Your task to perform on an android device: turn on priority inbox in the gmail app Image 0: 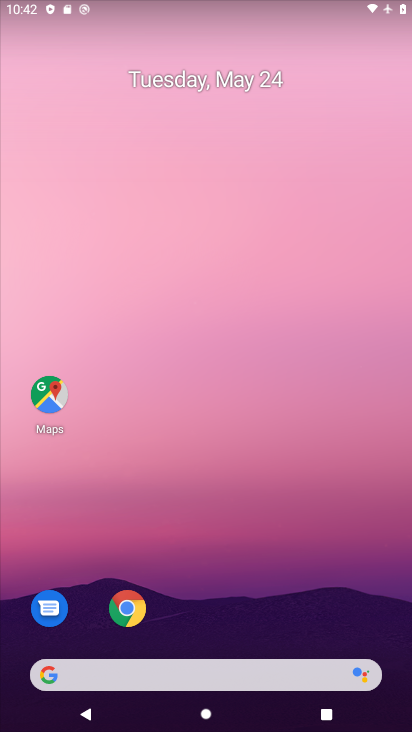
Step 0: drag from (385, 624) to (336, 75)
Your task to perform on an android device: turn on priority inbox in the gmail app Image 1: 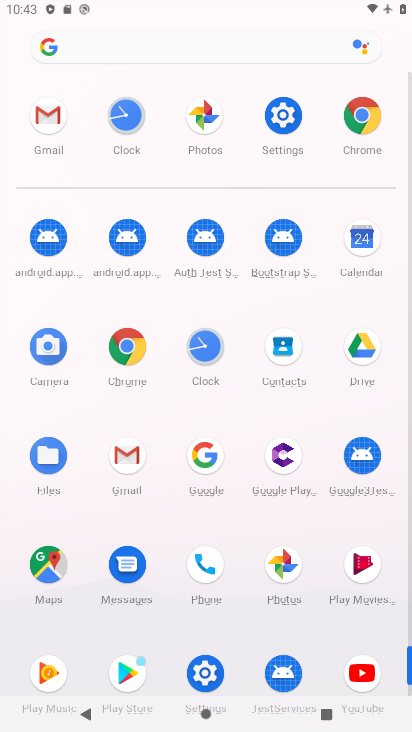
Step 1: click (126, 455)
Your task to perform on an android device: turn on priority inbox in the gmail app Image 2: 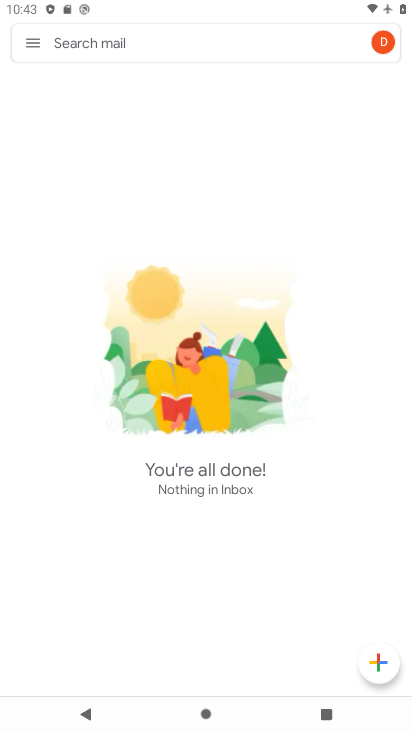
Step 2: click (30, 42)
Your task to perform on an android device: turn on priority inbox in the gmail app Image 3: 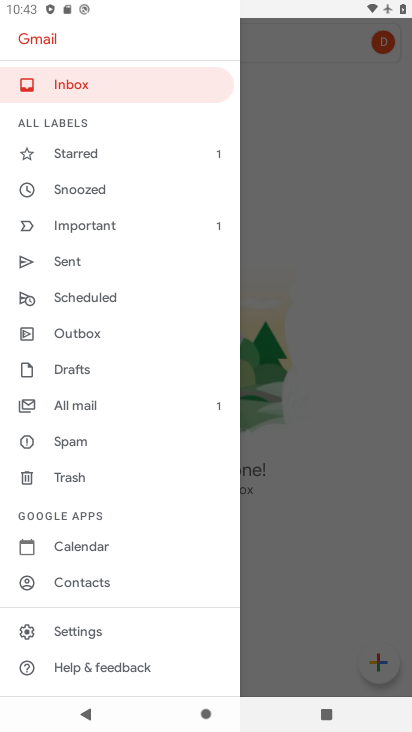
Step 3: click (92, 630)
Your task to perform on an android device: turn on priority inbox in the gmail app Image 4: 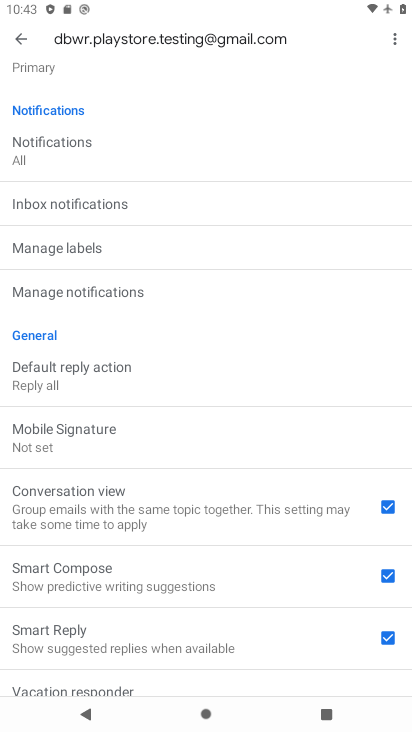
Step 4: drag from (137, 149) to (184, 452)
Your task to perform on an android device: turn on priority inbox in the gmail app Image 5: 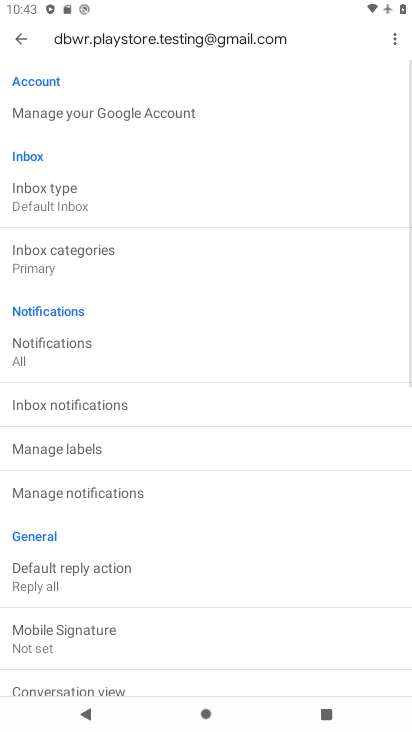
Step 5: click (38, 200)
Your task to perform on an android device: turn on priority inbox in the gmail app Image 6: 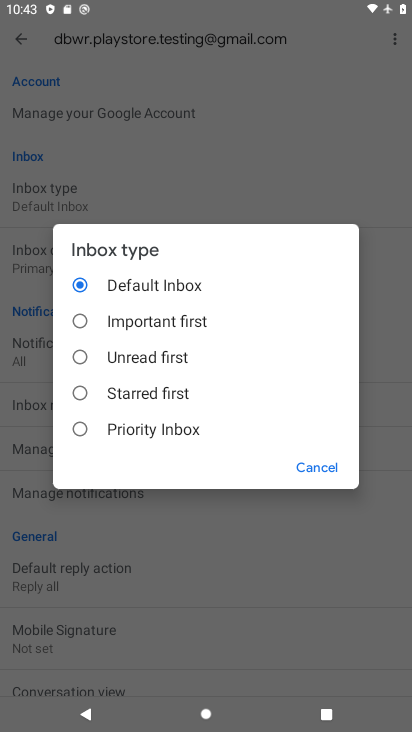
Step 6: click (110, 428)
Your task to perform on an android device: turn on priority inbox in the gmail app Image 7: 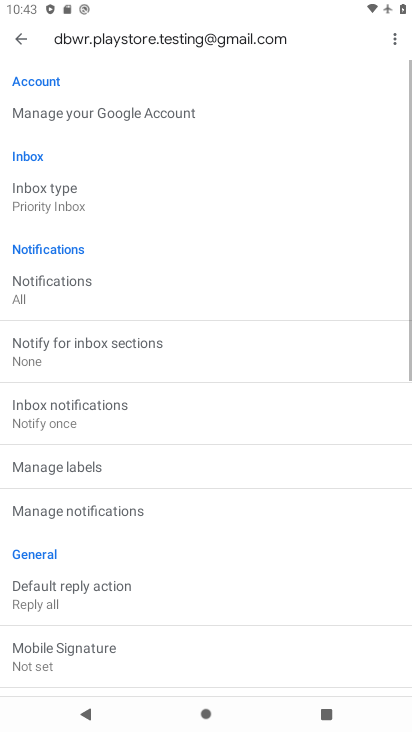
Step 7: task complete